Your task to perform on an android device: What's on my calendar today? Image 0: 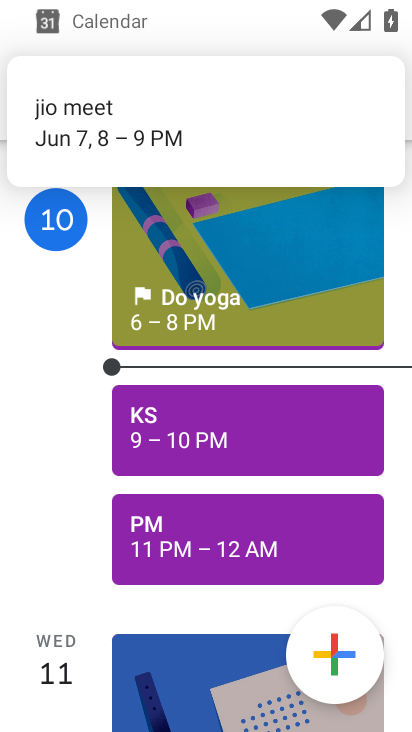
Step 0: drag from (105, 108) to (389, 122)
Your task to perform on an android device: What's on my calendar today? Image 1: 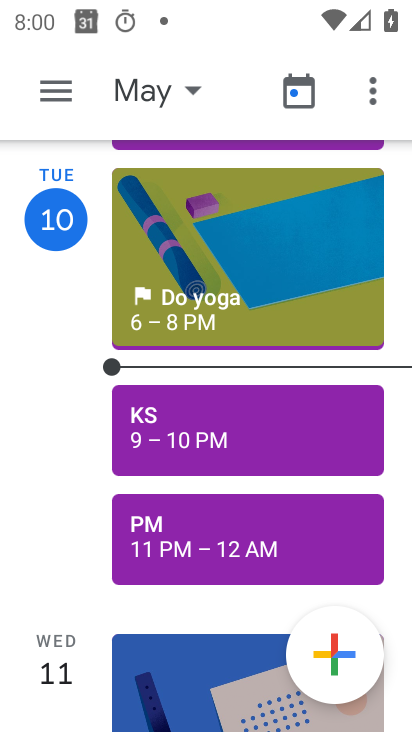
Step 1: task complete